Your task to perform on an android device: open sync settings in chrome Image 0: 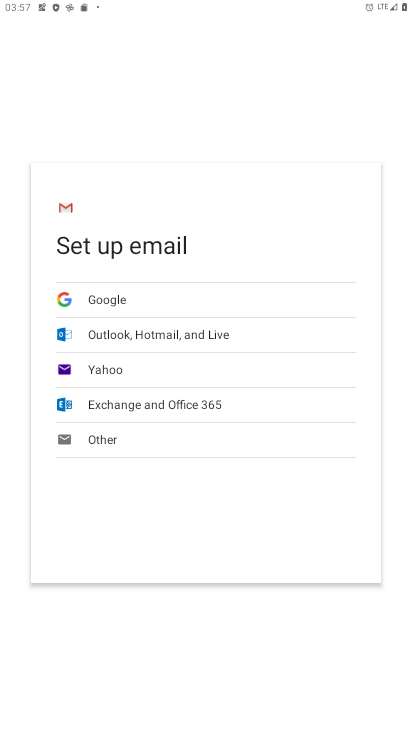
Step 0: press home button
Your task to perform on an android device: open sync settings in chrome Image 1: 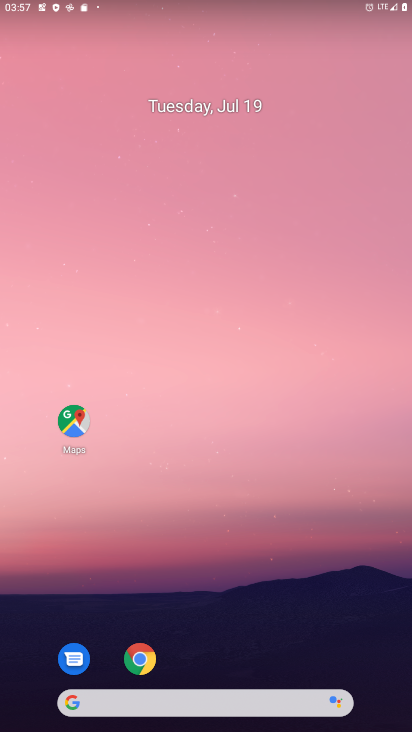
Step 1: click (147, 662)
Your task to perform on an android device: open sync settings in chrome Image 2: 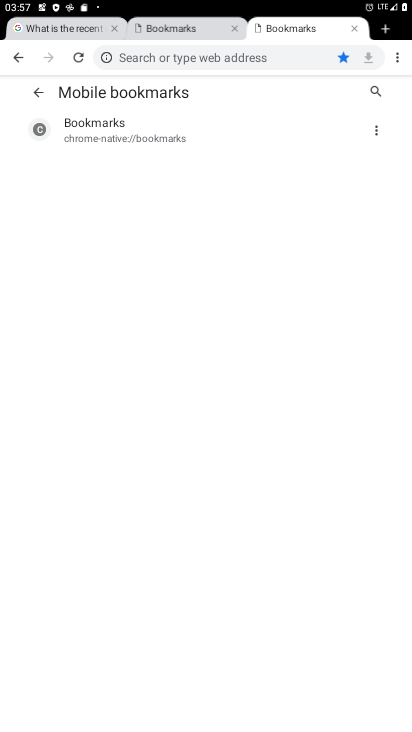
Step 2: drag from (388, 61) to (259, 292)
Your task to perform on an android device: open sync settings in chrome Image 3: 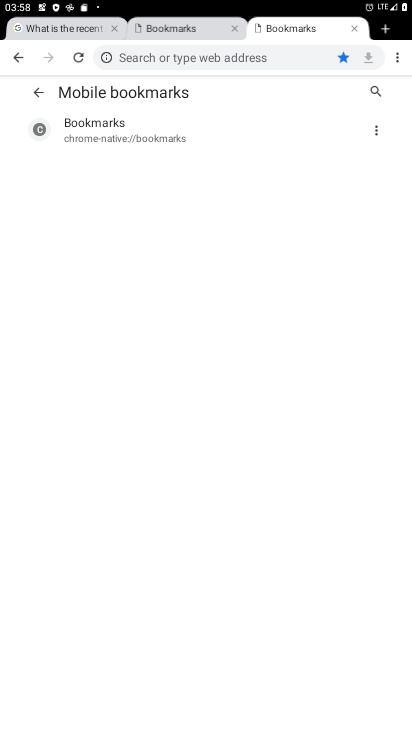
Step 3: drag from (396, 56) to (260, 304)
Your task to perform on an android device: open sync settings in chrome Image 4: 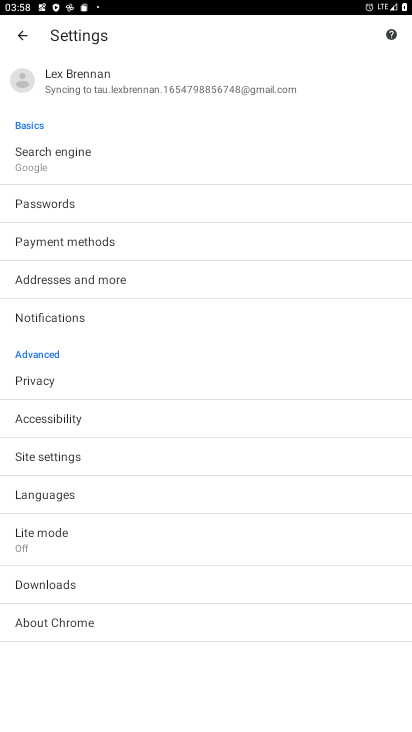
Step 4: click (76, 71)
Your task to perform on an android device: open sync settings in chrome Image 5: 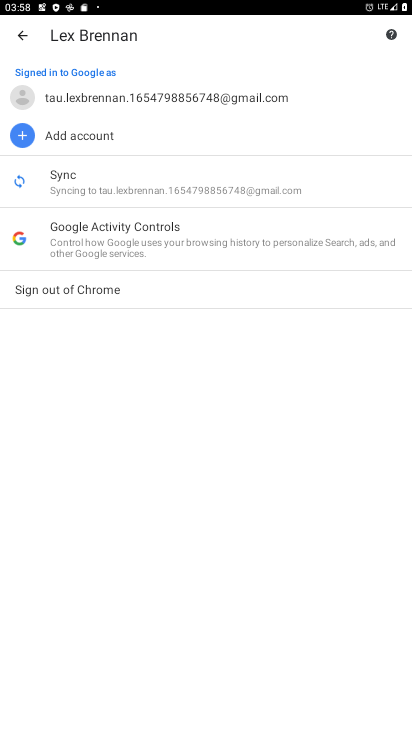
Step 5: click (57, 181)
Your task to perform on an android device: open sync settings in chrome Image 6: 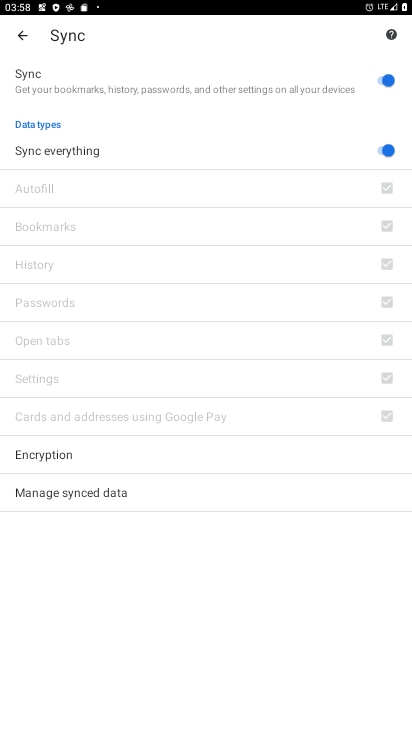
Step 6: task complete